Your task to perform on an android device: Open sound settings Image 0: 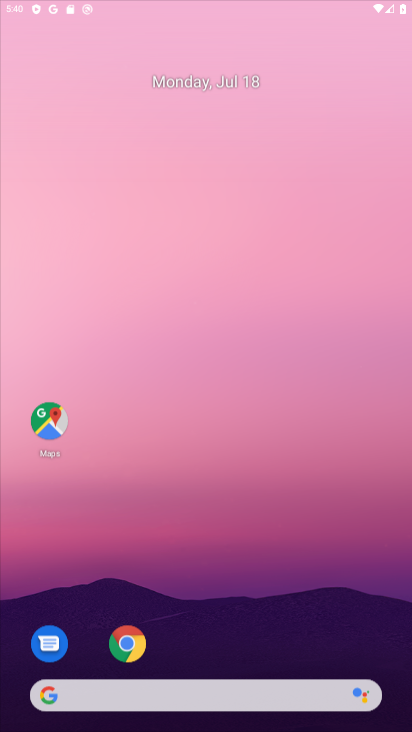
Step 0: press home button
Your task to perform on an android device: Open sound settings Image 1: 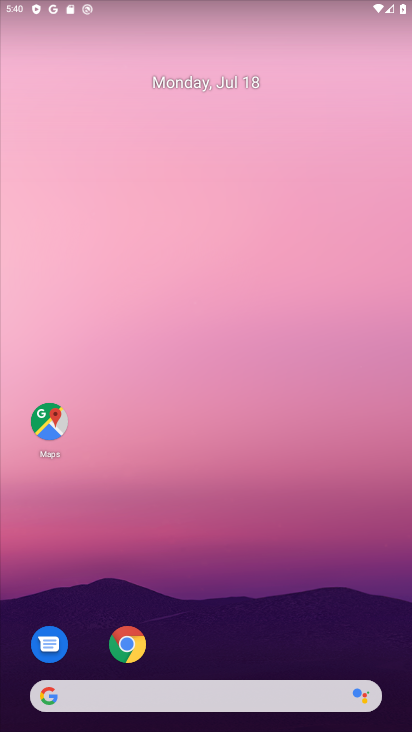
Step 1: drag from (234, 617) to (323, 19)
Your task to perform on an android device: Open sound settings Image 2: 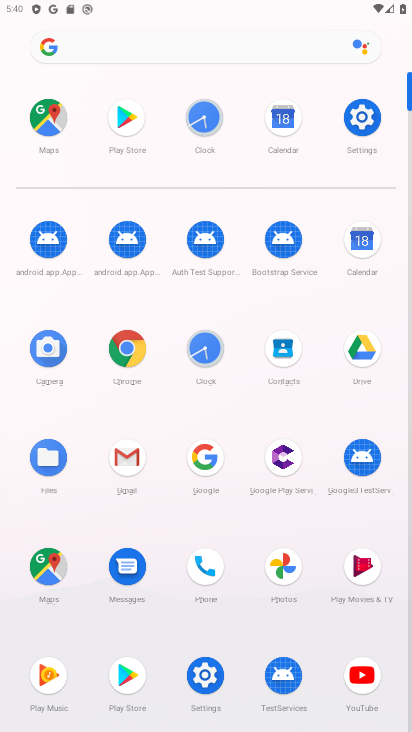
Step 2: click (363, 121)
Your task to perform on an android device: Open sound settings Image 3: 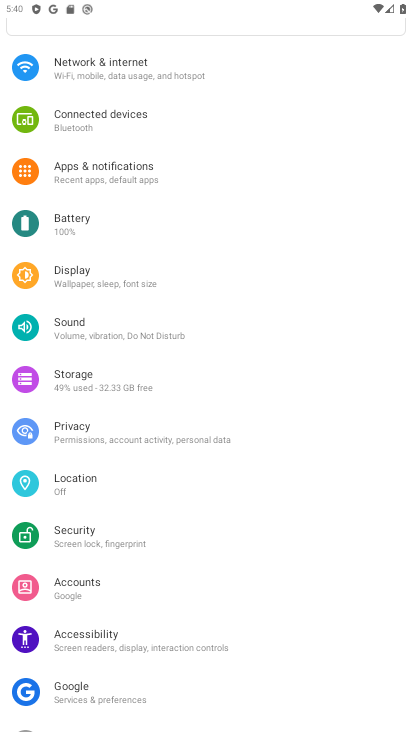
Step 3: click (100, 326)
Your task to perform on an android device: Open sound settings Image 4: 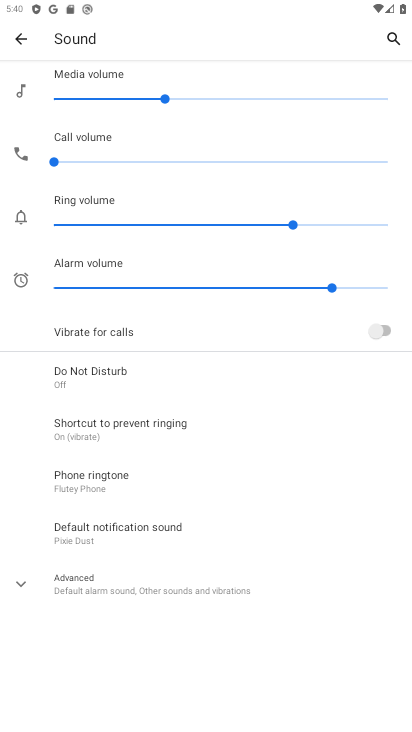
Step 4: task complete